Your task to perform on an android device: turn off airplane mode Image 0: 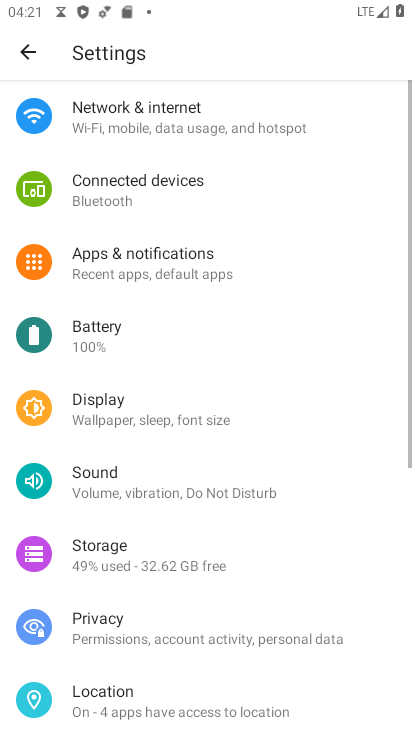
Step 0: drag from (266, 201) to (231, 578)
Your task to perform on an android device: turn off airplane mode Image 1: 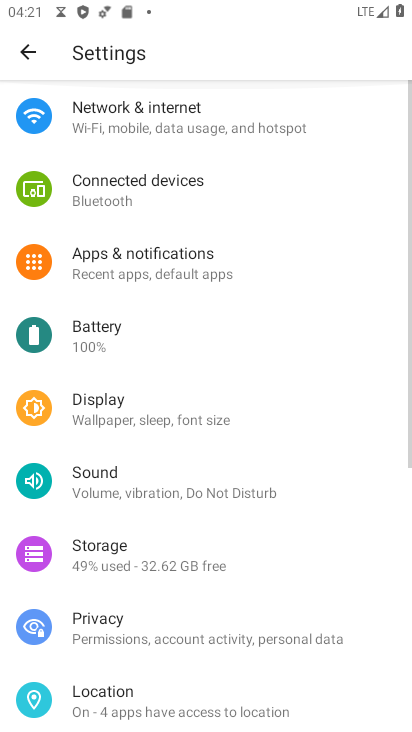
Step 1: click (194, 117)
Your task to perform on an android device: turn off airplane mode Image 2: 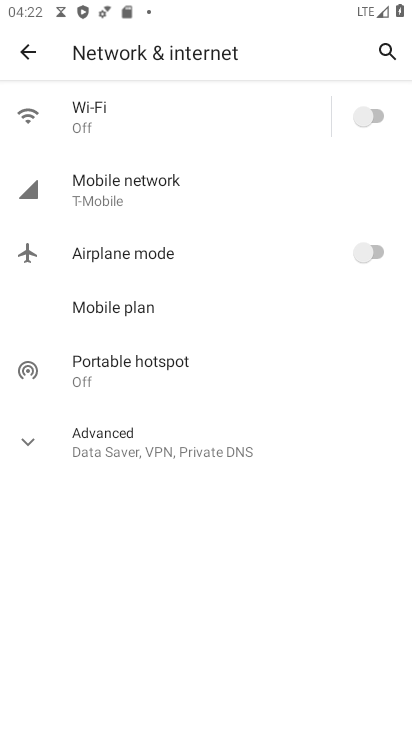
Step 2: click (37, 438)
Your task to perform on an android device: turn off airplane mode Image 3: 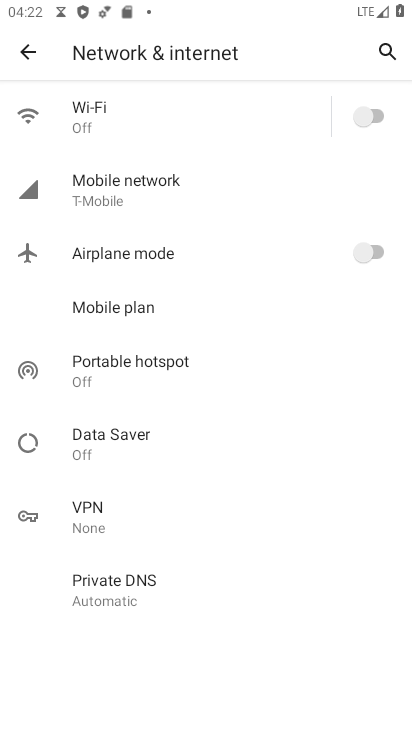
Step 3: click (376, 252)
Your task to perform on an android device: turn off airplane mode Image 4: 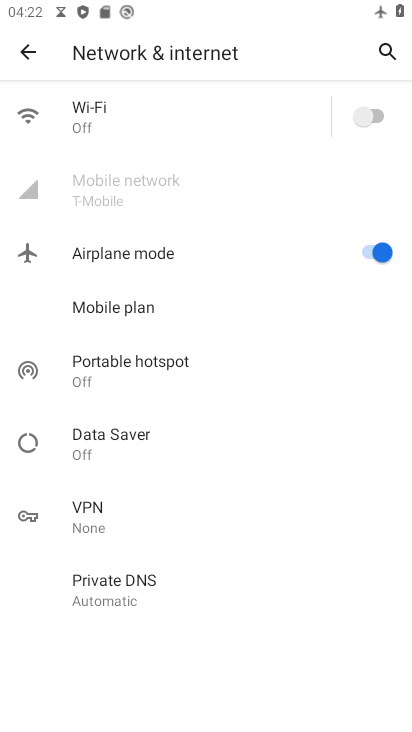
Step 4: click (376, 252)
Your task to perform on an android device: turn off airplane mode Image 5: 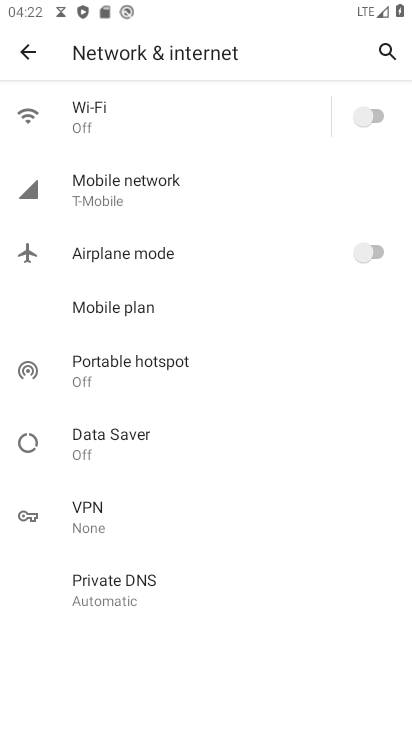
Step 5: task complete